Your task to perform on an android device: Go to Wikipedia Image 0: 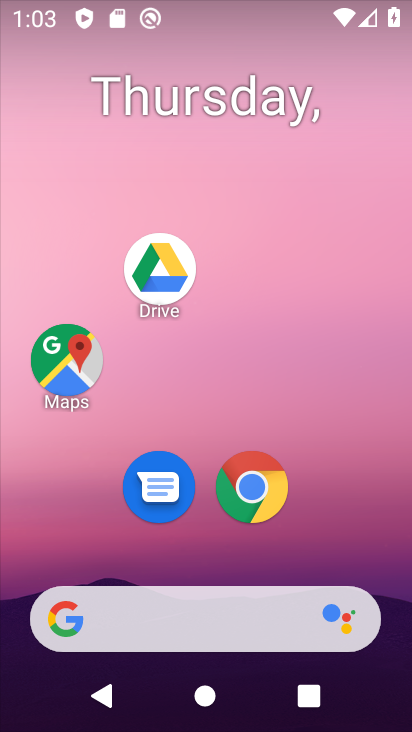
Step 0: click (260, 486)
Your task to perform on an android device: Go to Wikipedia Image 1: 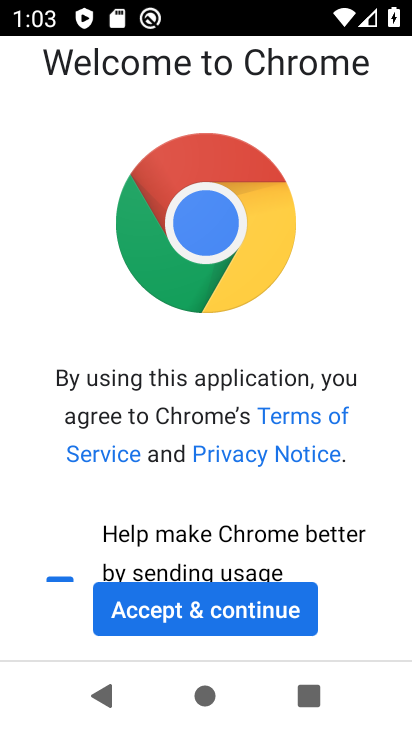
Step 1: click (255, 618)
Your task to perform on an android device: Go to Wikipedia Image 2: 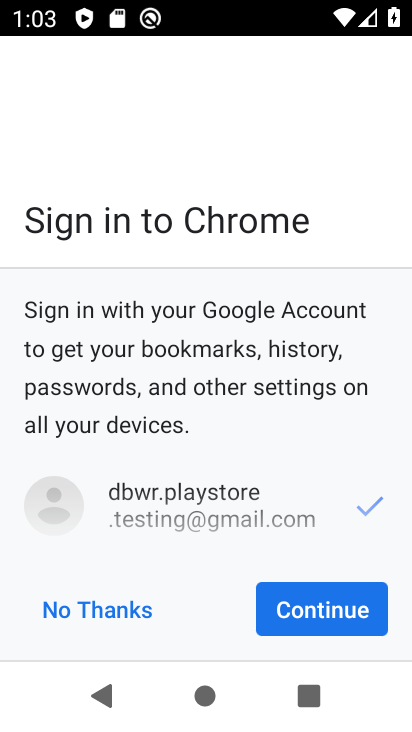
Step 2: click (288, 613)
Your task to perform on an android device: Go to Wikipedia Image 3: 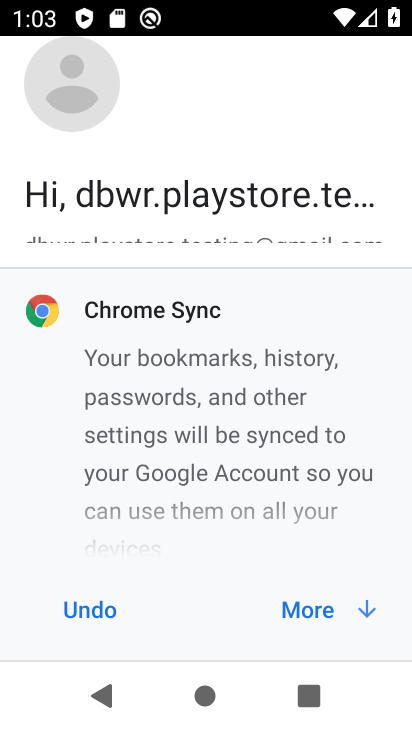
Step 3: click (302, 608)
Your task to perform on an android device: Go to Wikipedia Image 4: 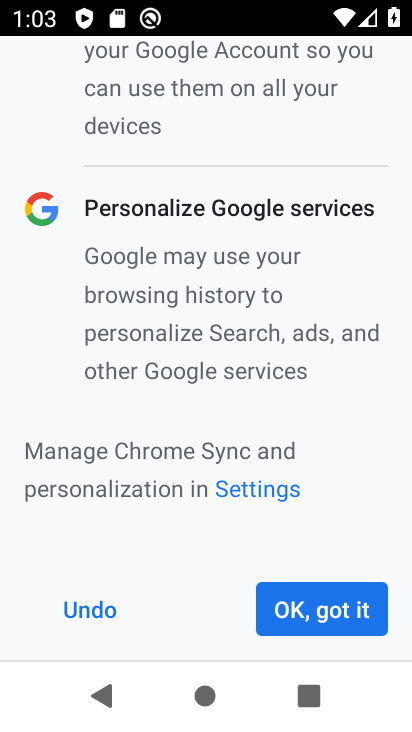
Step 4: click (311, 623)
Your task to perform on an android device: Go to Wikipedia Image 5: 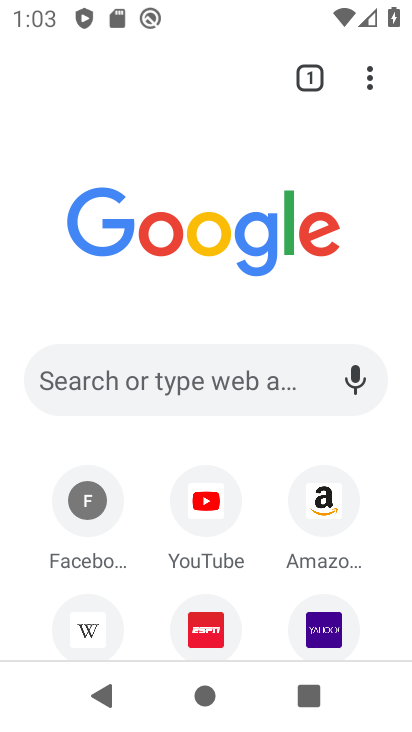
Step 5: click (94, 612)
Your task to perform on an android device: Go to Wikipedia Image 6: 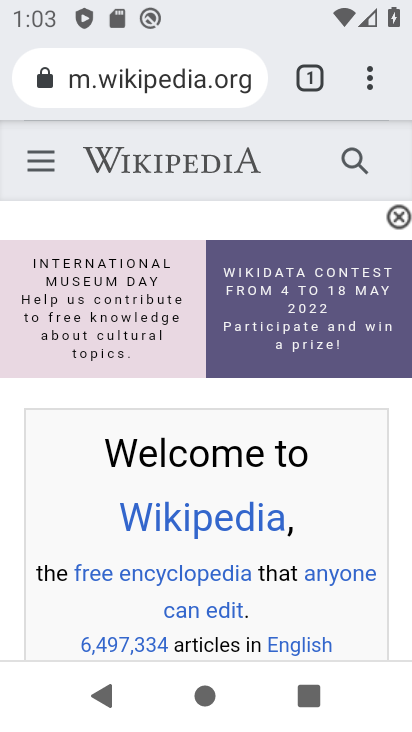
Step 6: task complete